Your task to perform on an android device: Open maps Image 0: 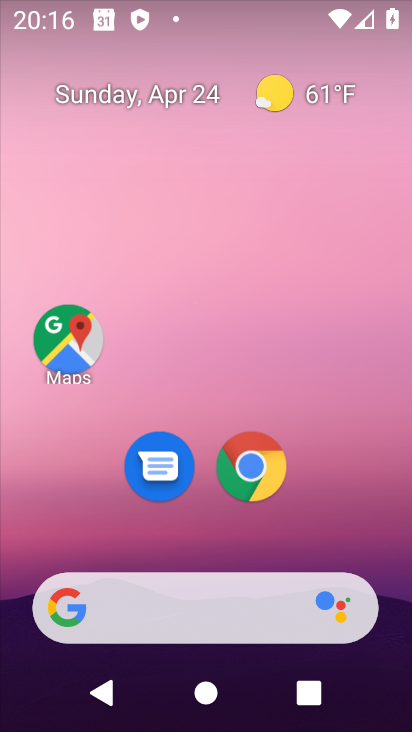
Step 0: click (79, 333)
Your task to perform on an android device: Open maps Image 1: 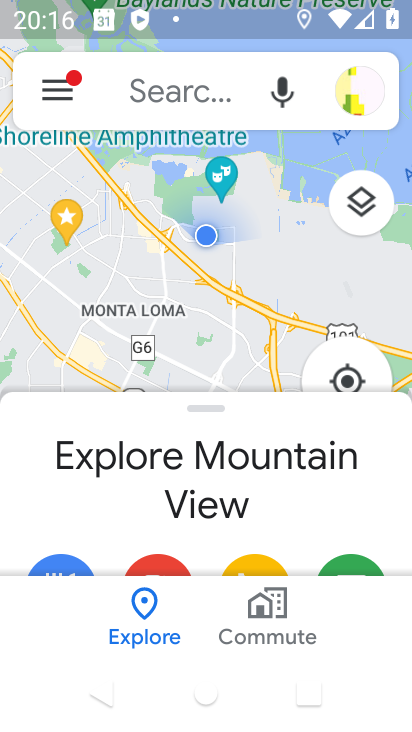
Step 1: task complete